Your task to perform on an android device: Search for the best rated drill on Lowes.com Image 0: 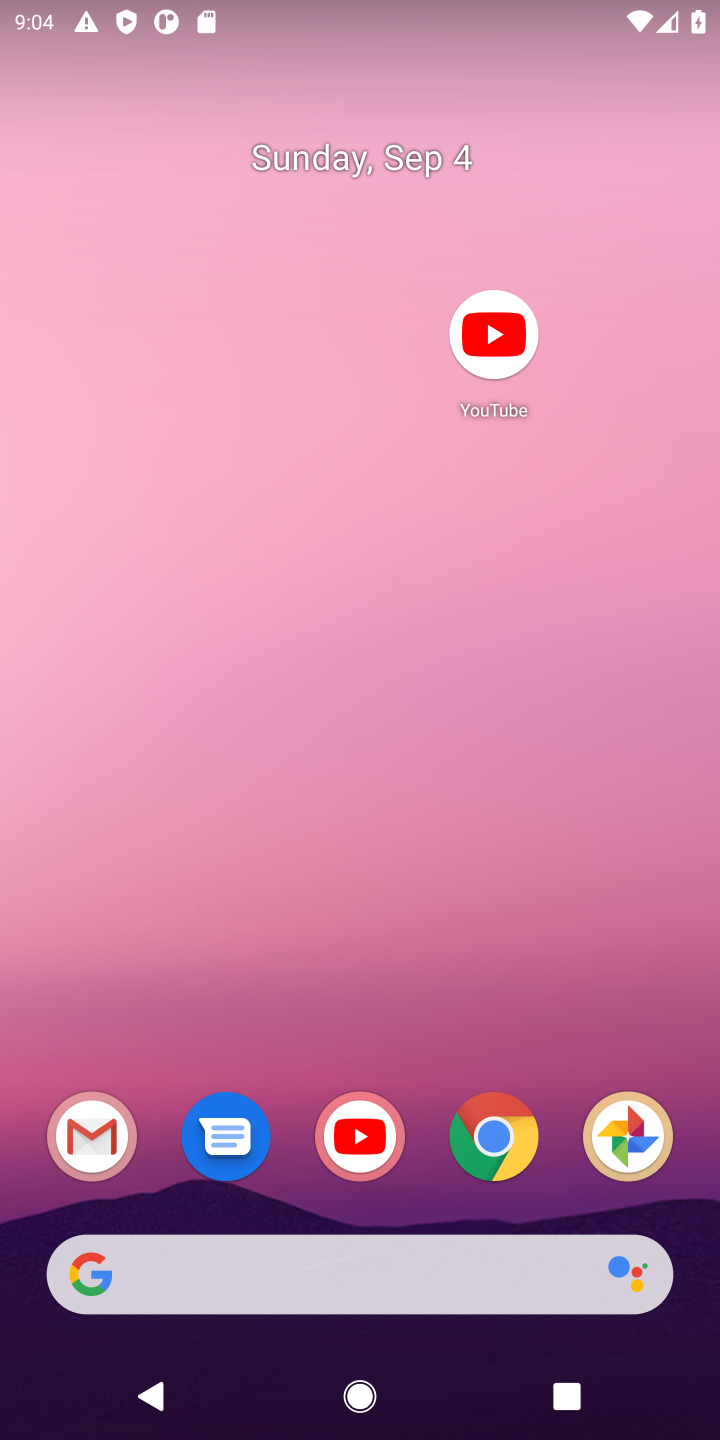
Step 0: click (324, 63)
Your task to perform on an android device: Search for the best rated drill on Lowes.com Image 1: 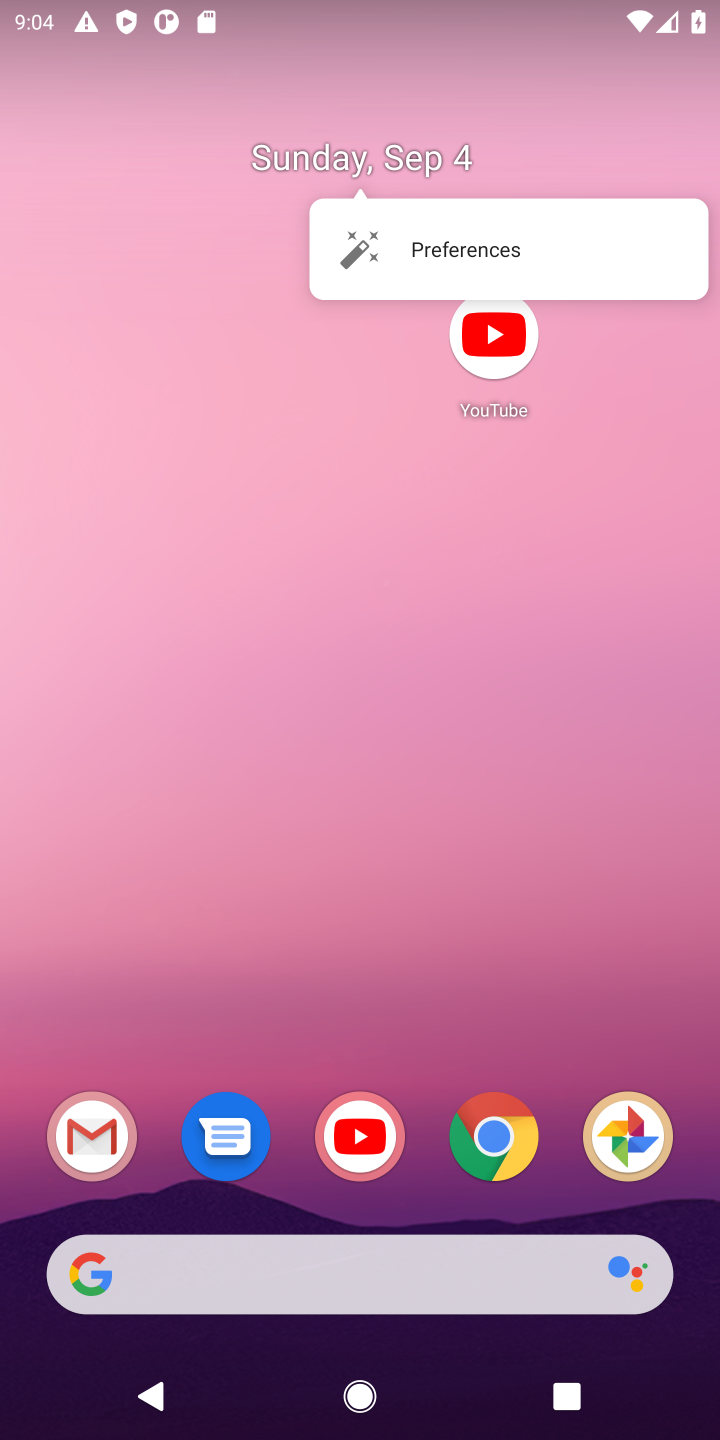
Step 1: click (509, 1131)
Your task to perform on an android device: Search for the best rated drill on Lowes.com Image 2: 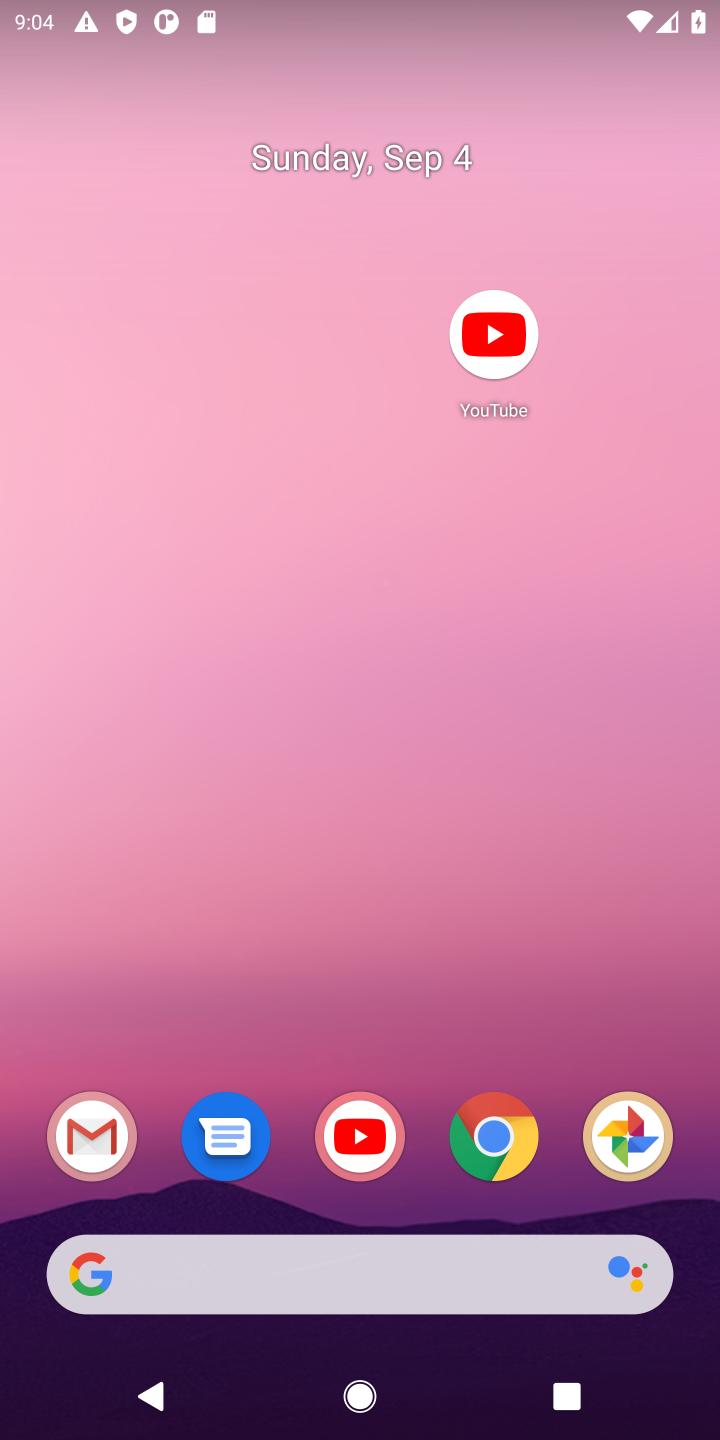
Step 2: click (492, 1131)
Your task to perform on an android device: Search for the best rated drill on Lowes.com Image 3: 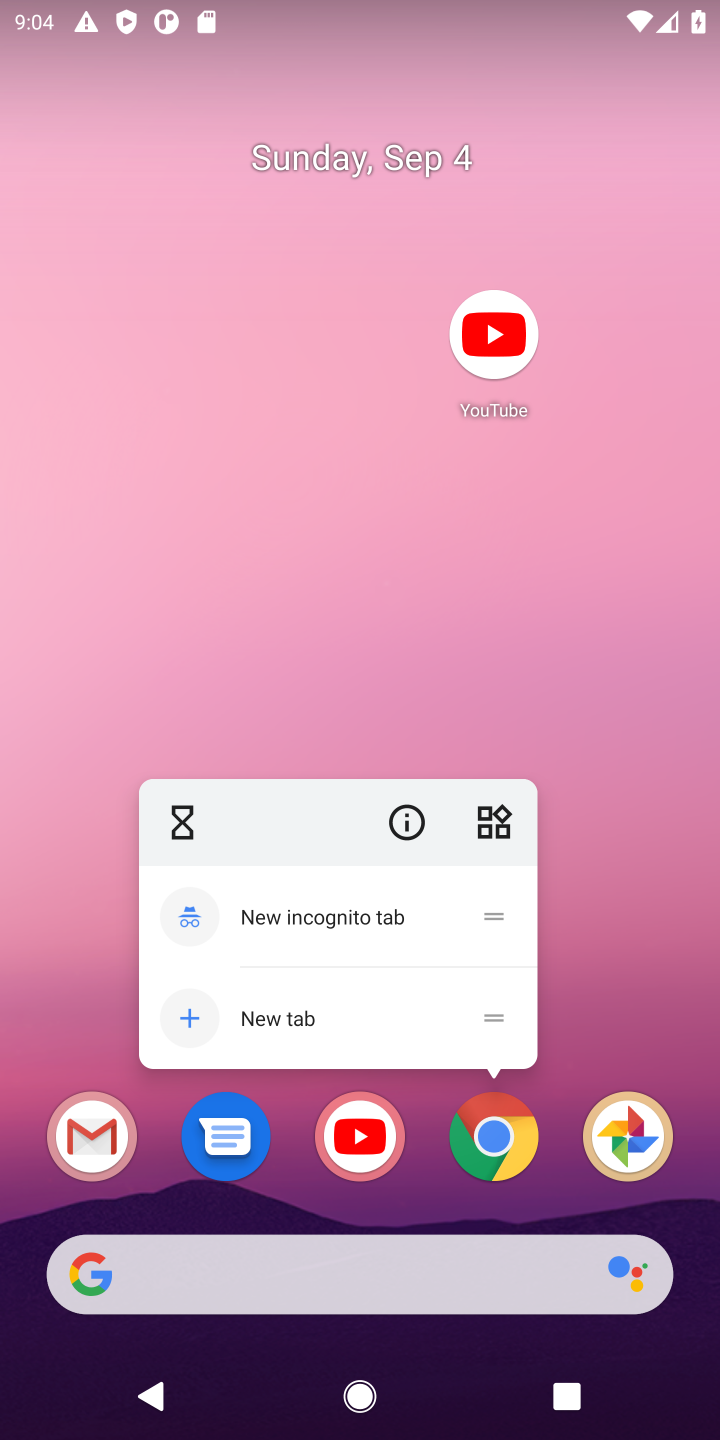
Step 3: click (475, 1140)
Your task to perform on an android device: Search for the best rated drill on Lowes.com Image 4: 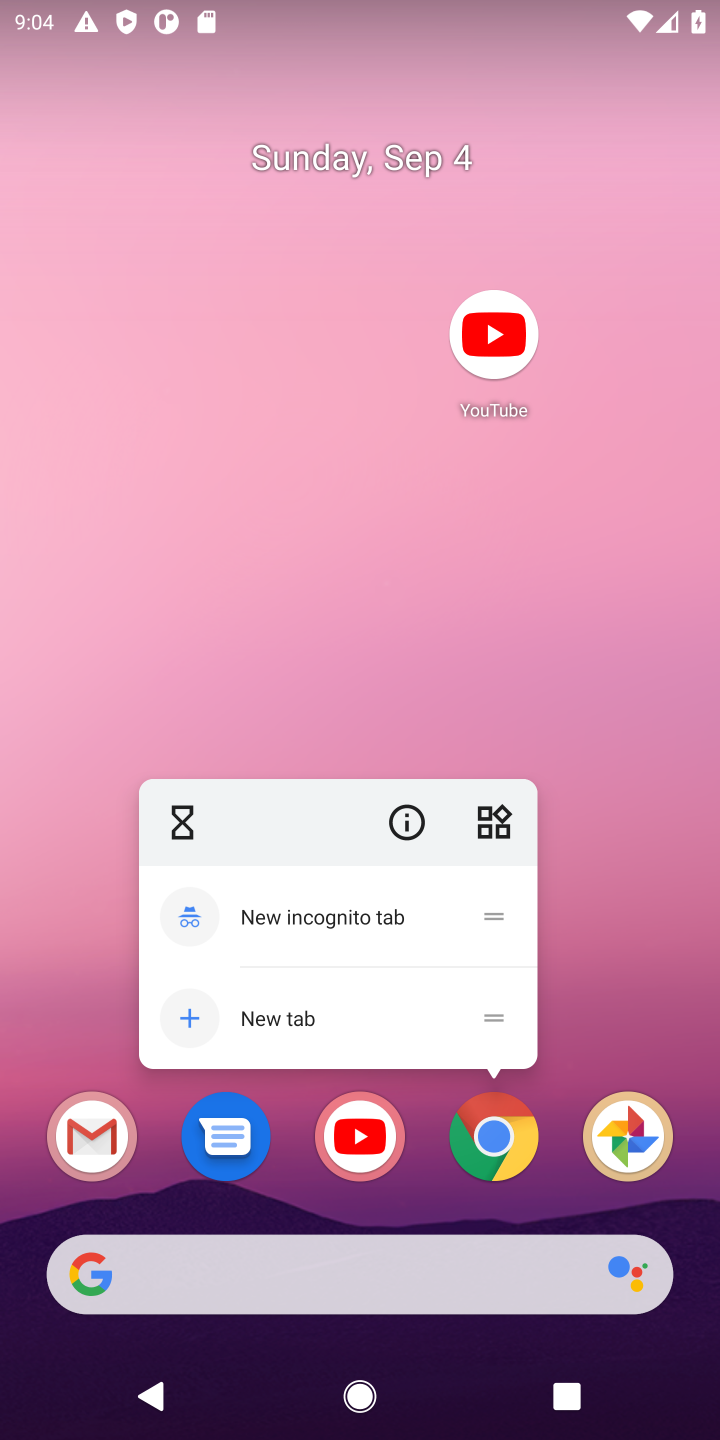
Step 4: click (329, 414)
Your task to perform on an android device: Search for the best rated drill on Lowes.com Image 5: 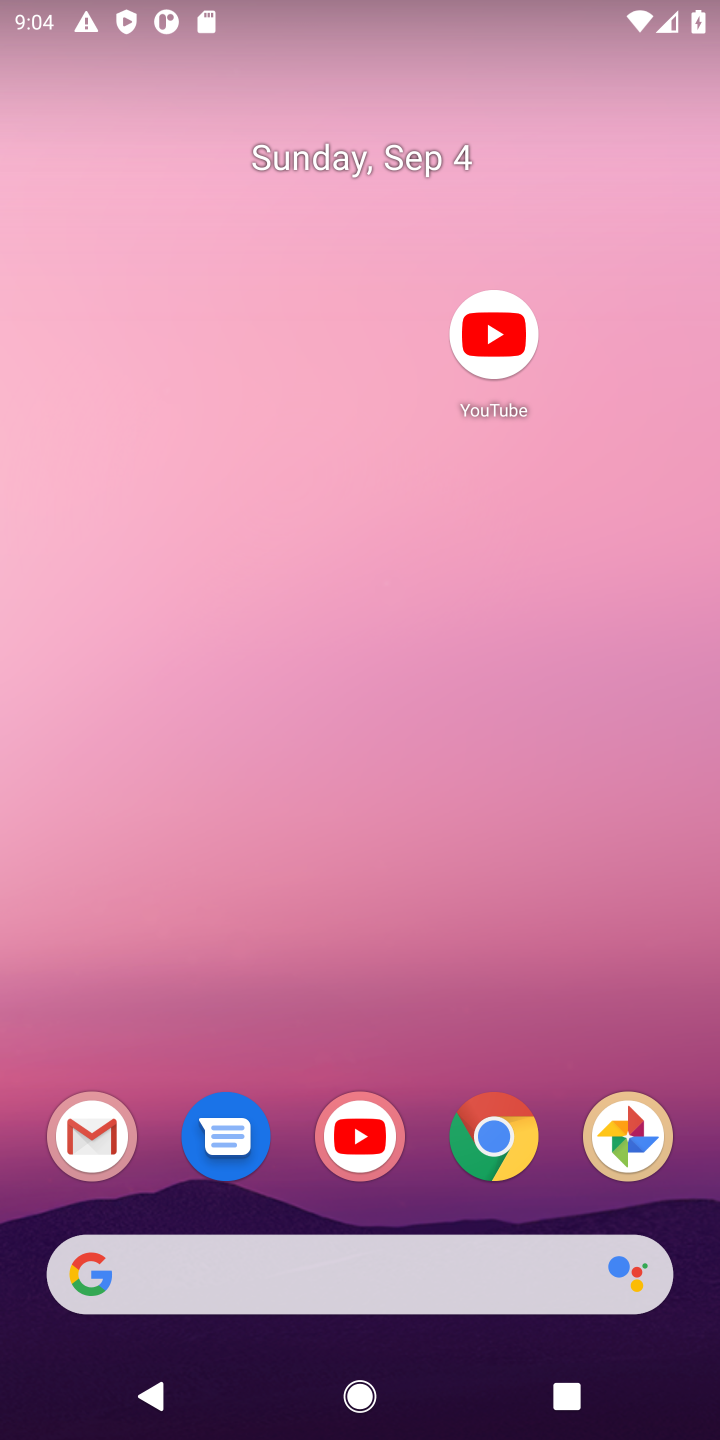
Step 5: drag from (282, 1184) to (394, 67)
Your task to perform on an android device: Search for the best rated drill on Lowes.com Image 6: 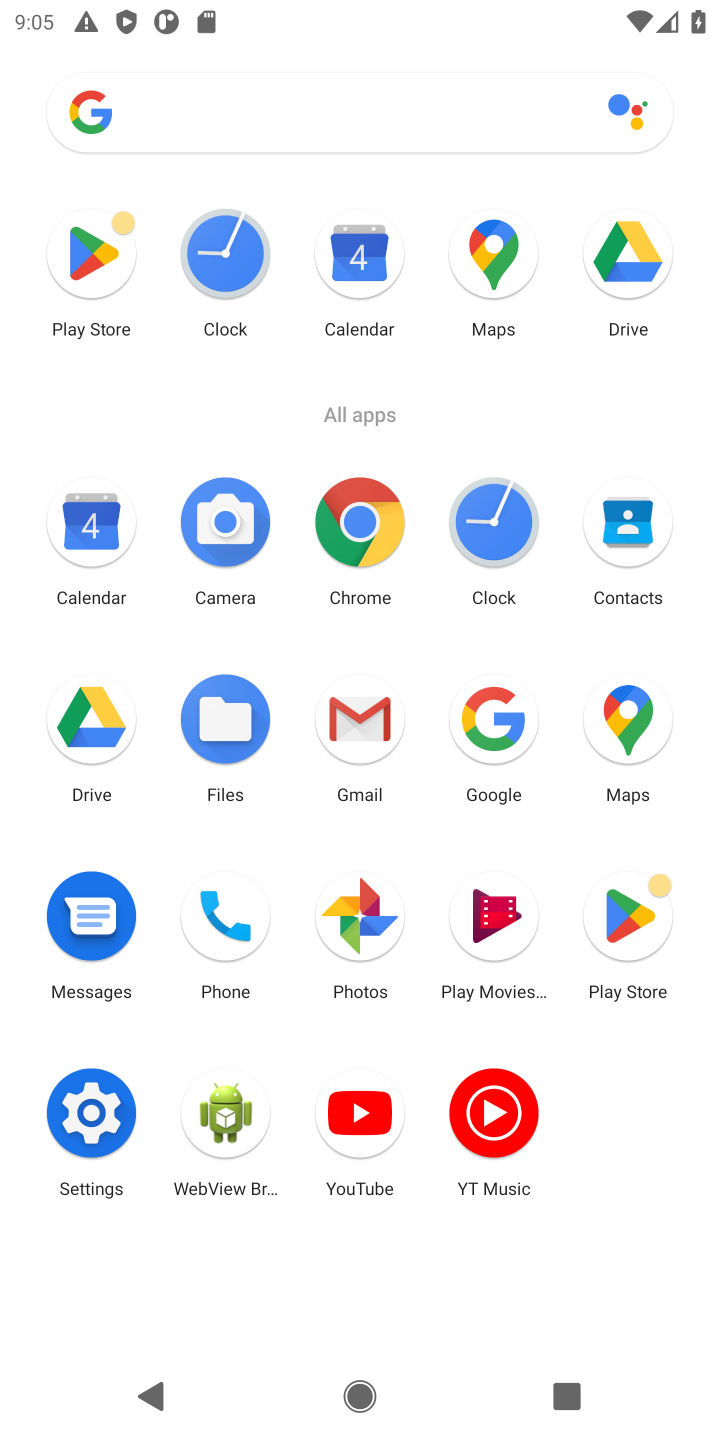
Step 6: click (485, 810)
Your task to perform on an android device: Search for the best rated drill on Lowes.com Image 7: 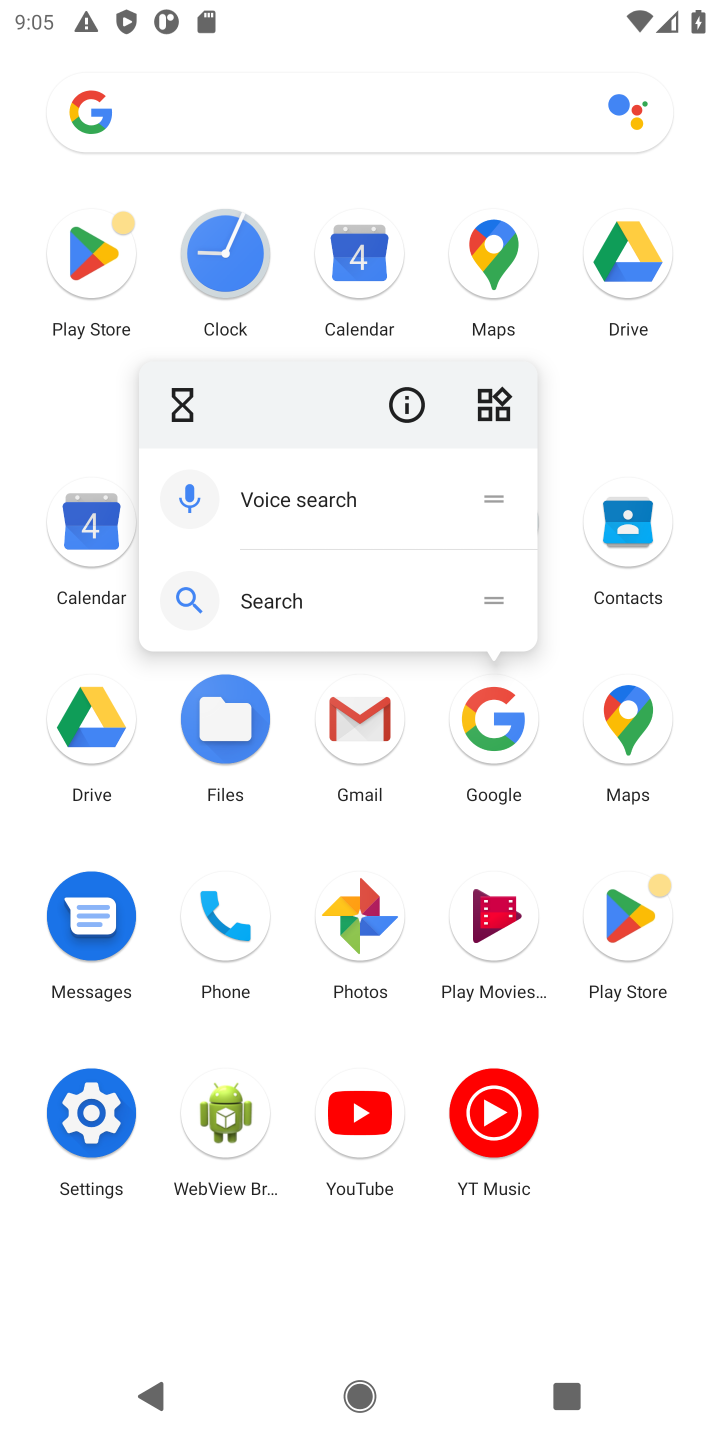
Step 7: click (485, 783)
Your task to perform on an android device: Search for the best rated drill on Lowes.com Image 8: 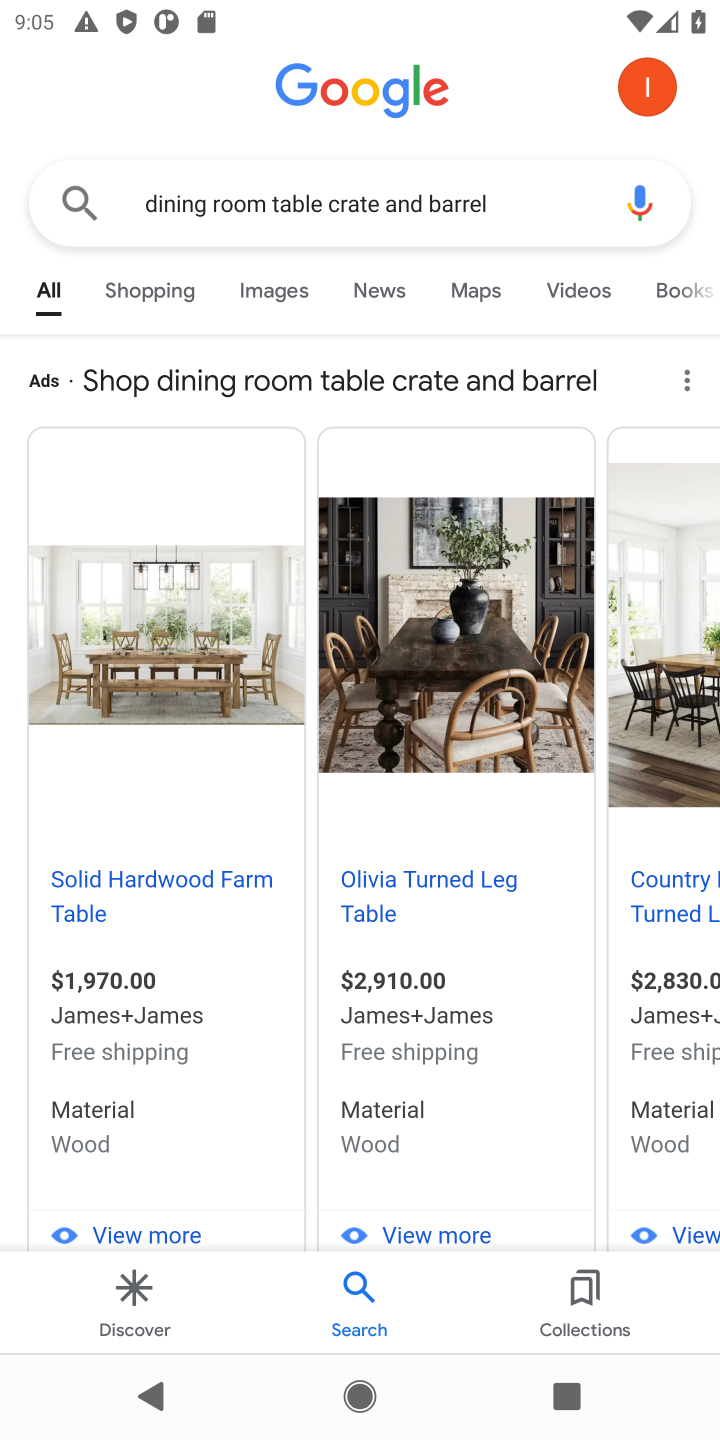
Step 8: task complete